Your task to perform on an android device: Clear the cart on ebay. Image 0: 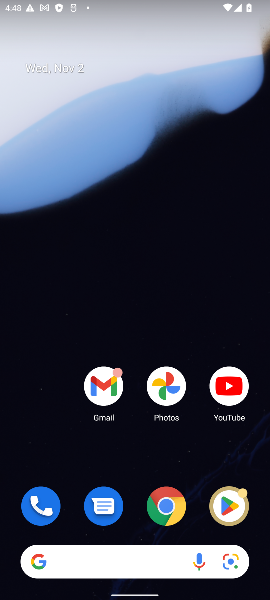
Step 0: click (171, 516)
Your task to perform on an android device: Clear the cart on ebay. Image 1: 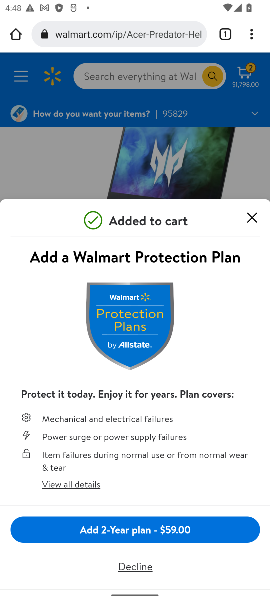
Step 1: click (138, 31)
Your task to perform on an android device: Clear the cart on ebay. Image 2: 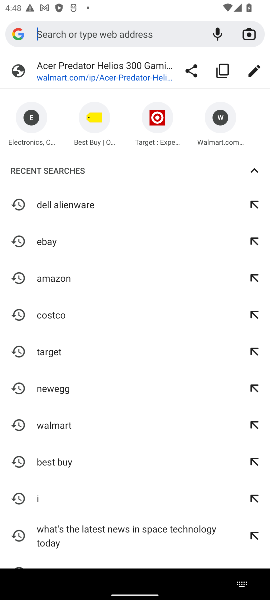
Step 2: type "ebay"
Your task to perform on an android device: Clear the cart on ebay. Image 3: 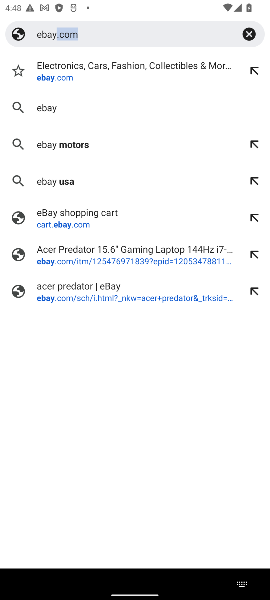
Step 3: press enter
Your task to perform on an android device: Clear the cart on ebay. Image 4: 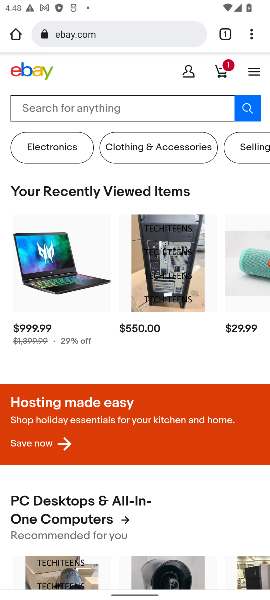
Step 4: click (228, 76)
Your task to perform on an android device: Clear the cart on ebay. Image 5: 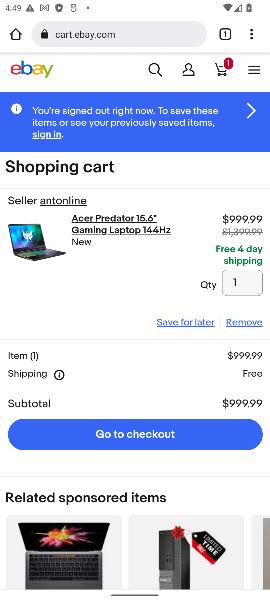
Step 5: task complete